Your task to perform on an android device: check google app version Image 0: 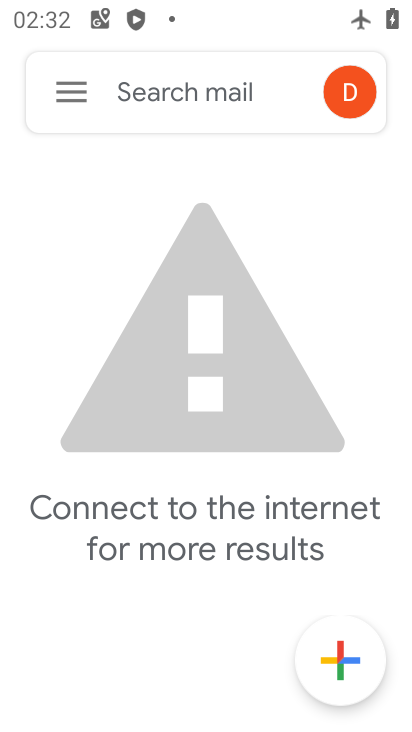
Step 0: press home button
Your task to perform on an android device: check google app version Image 1: 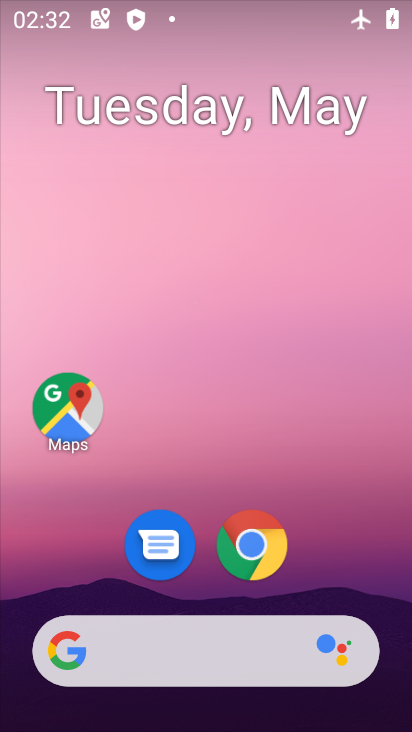
Step 1: click (248, 548)
Your task to perform on an android device: check google app version Image 2: 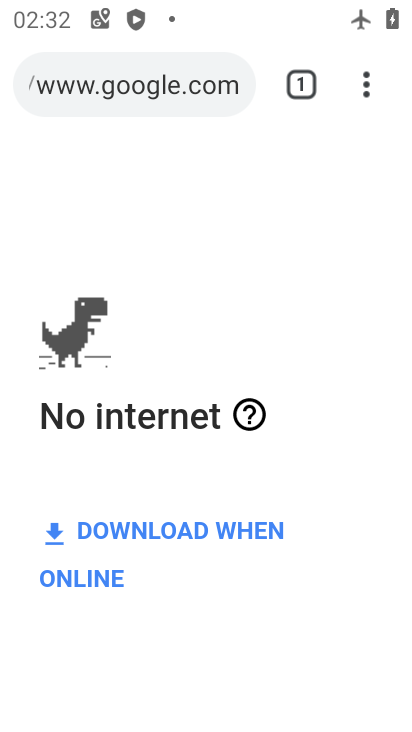
Step 2: press home button
Your task to perform on an android device: check google app version Image 3: 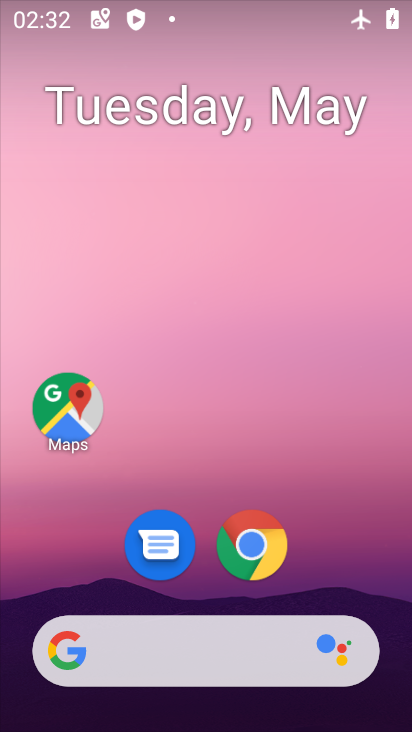
Step 3: click (250, 545)
Your task to perform on an android device: check google app version Image 4: 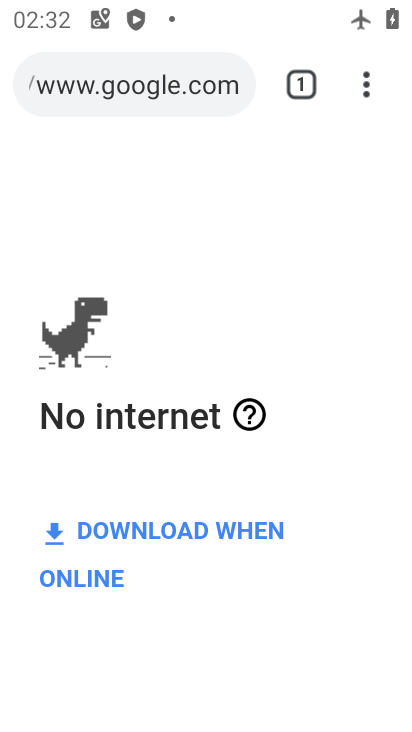
Step 4: click (363, 89)
Your task to perform on an android device: check google app version Image 5: 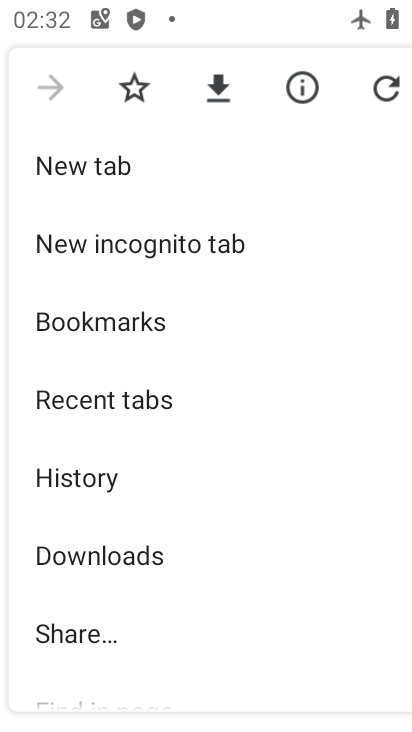
Step 5: drag from (163, 544) to (265, 113)
Your task to perform on an android device: check google app version Image 6: 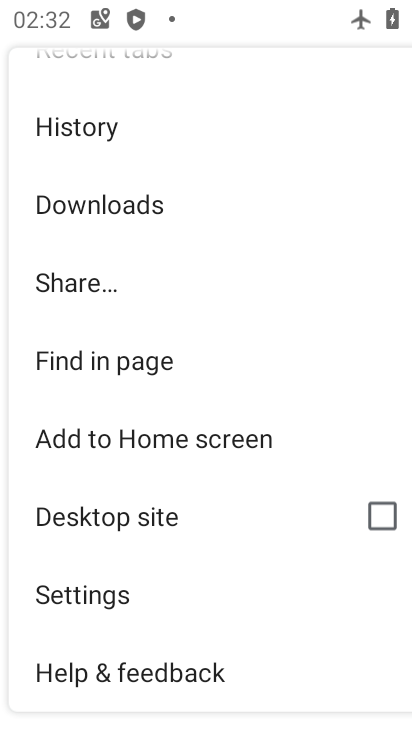
Step 6: click (94, 592)
Your task to perform on an android device: check google app version Image 7: 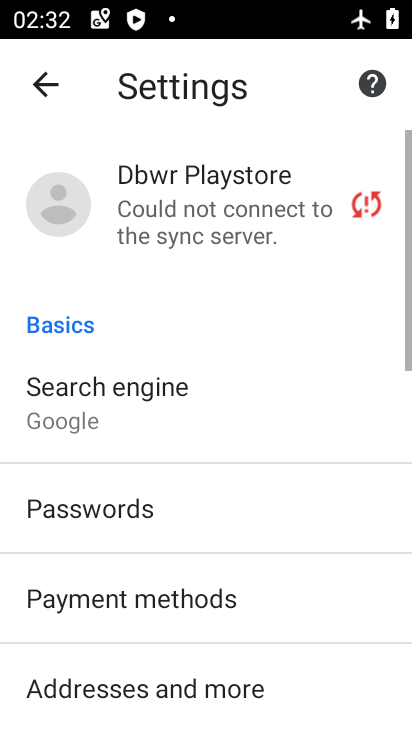
Step 7: drag from (276, 645) to (244, 135)
Your task to perform on an android device: check google app version Image 8: 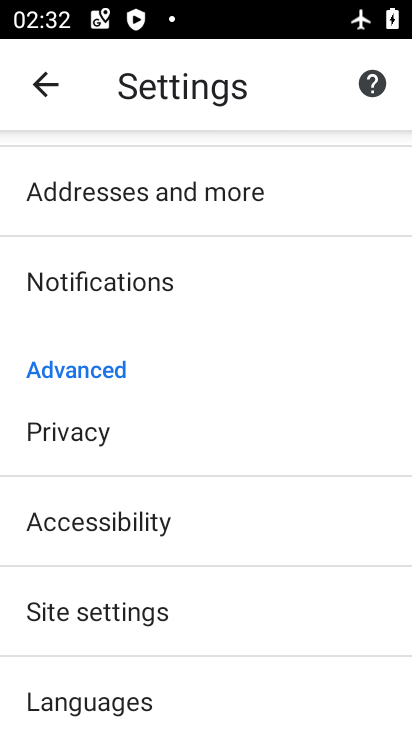
Step 8: drag from (226, 675) to (295, 255)
Your task to perform on an android device: check google app version Image 9: 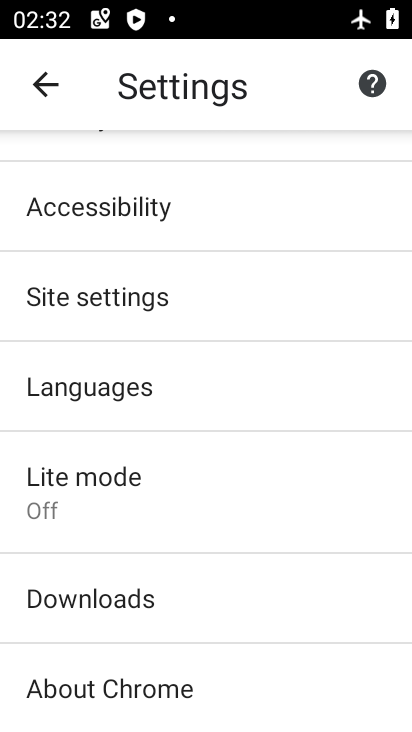
Step 9: click (109, 684)
Your task to perform on an android device: check google app version Image 10: 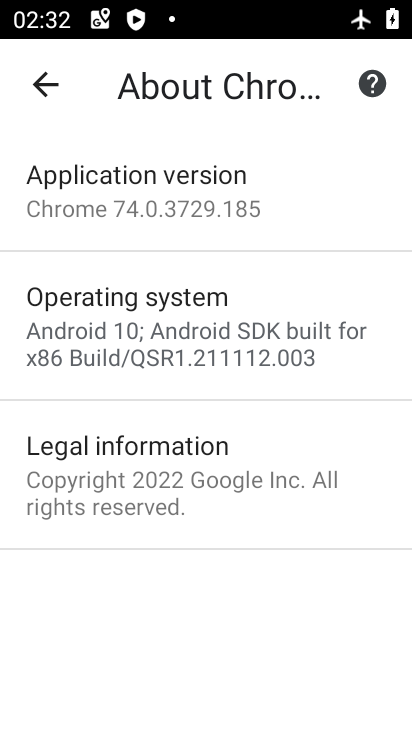
Step 10: click (140, 172)
Your task to perform on an android device: check google app version Image 11: 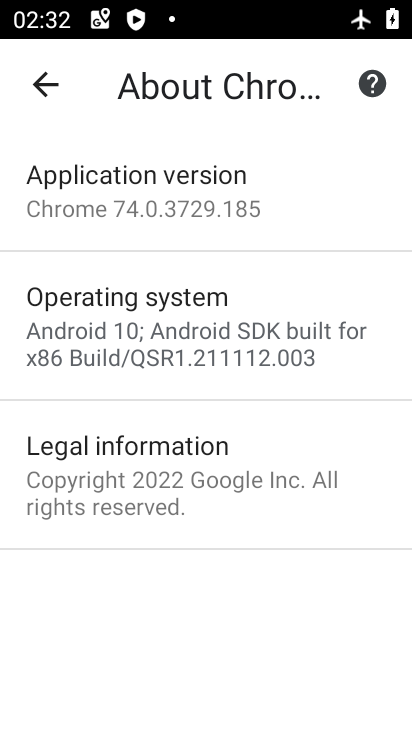
Step 11: task complete